Your task to perform on an android device: turn on showing notifications on the lock screen Image 0: 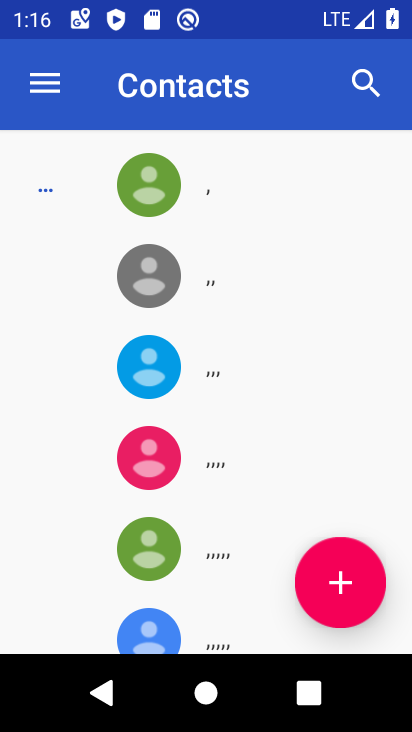
Step 0: press home button
Your task to perform on an android device: turn on showing notifications on the lock screen Image 1: 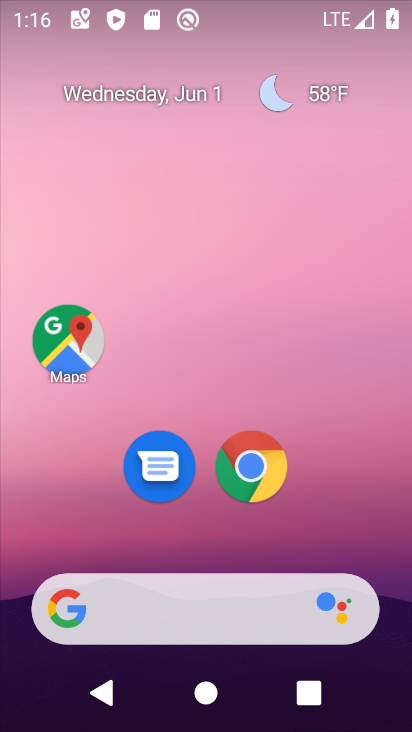
Step 1: drag from (373, 529) to (317, 90)
Your task to perform on an android device: turn on showing notifications on the lock screen Image 2: 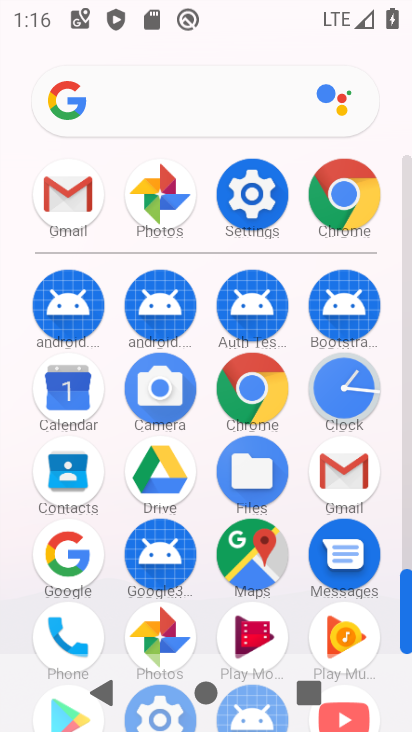
Step 2: click (270, 200)
Your task to perform on an android device: turn on showing notifications on the lock screen Image 3: 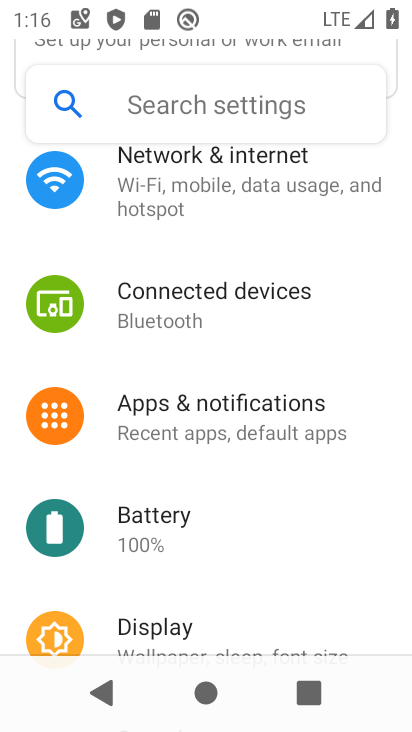
Step 3: click (253, 450)
Your task to perform on an android device: turn on showing notifications on the lock screen Image 4: 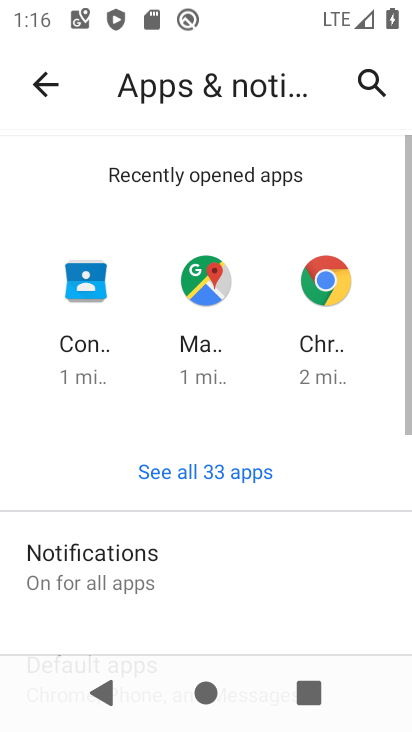
Step 4: click (243, 530)
Your task to perform on an android device: turn on showing notifications on the lock screen Image 5: 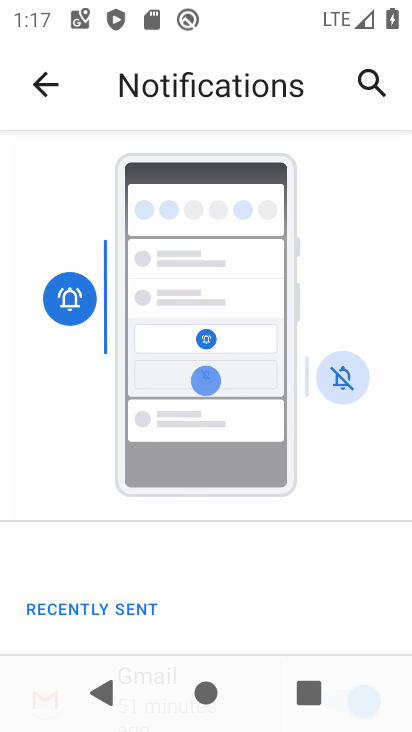
Step 5: drag from (254, 572) to (218, 282)
Your task to perform on an android device: turn on showing notifications on the lock screen Image 6: 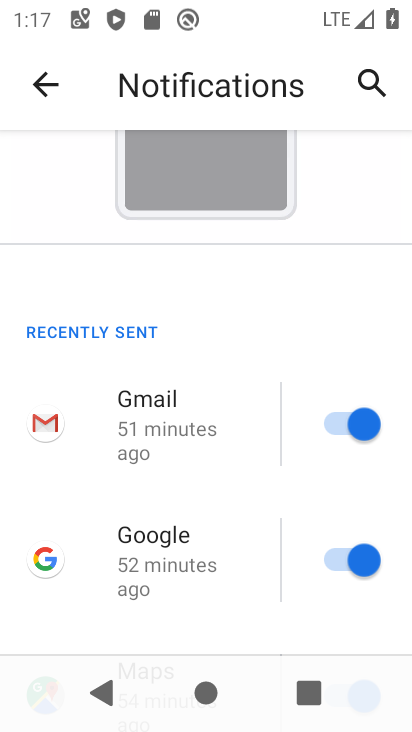
Step 6: drag from (227, 558) to (212, 158)
Your task to perform on an android device: turn on showing notifications on the lock screen Image 7: 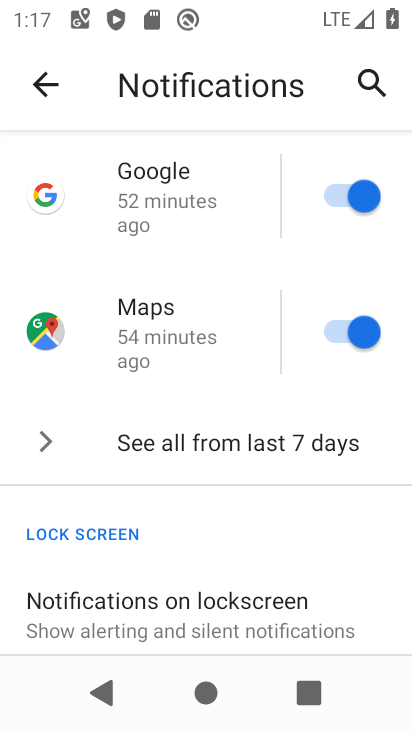
Step 7: click (276, 615)
Your task to perform on an android device: turn on showing notifications on the lock screen Image 8: 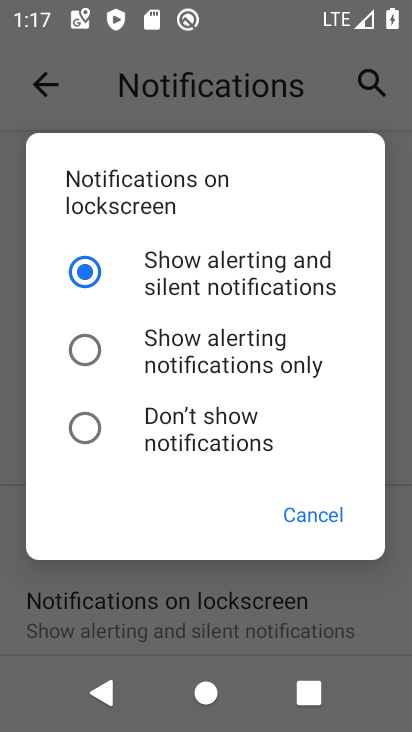
Step 8: task complete